Your task to perform on an android device: turn off priority inbox in the gmail app Image 0: 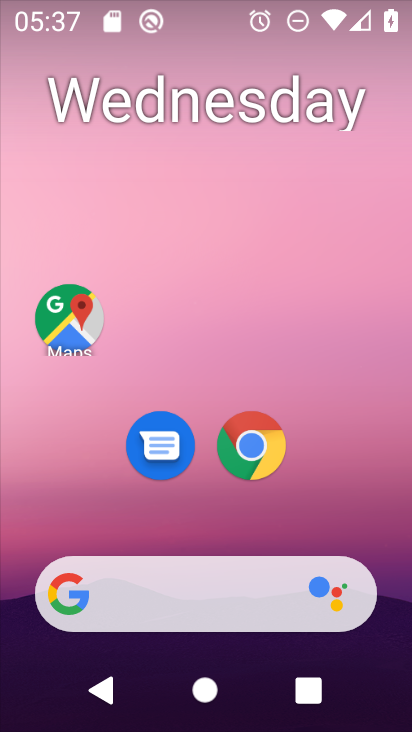
Step 0: drag from (196, 517) to (237, 76)
Your task to perform on an android device: turn off priority inbox in the gmail app Image 1: 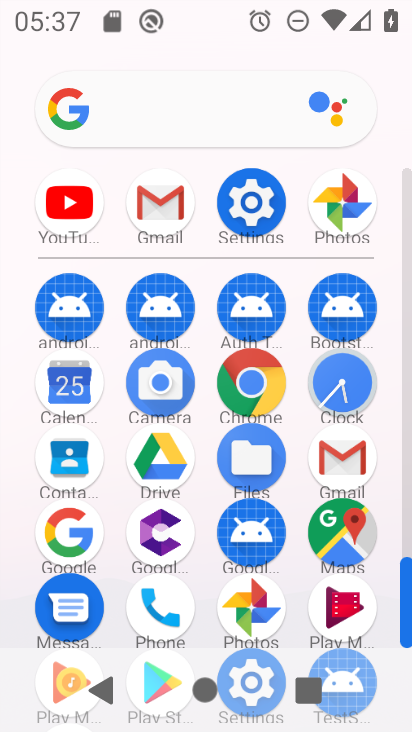
Step 1: click (170, 189)
Your task to perform on an android device: turn off priority inbox in the gmail app Image 2: 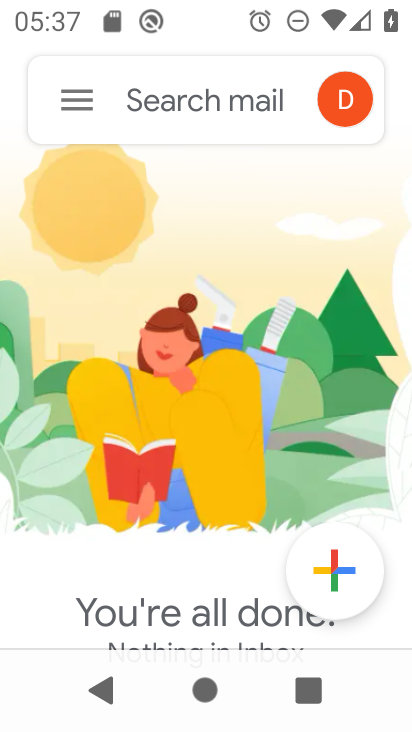
Step 2: click (88, 104)
Your task to perform on an android device: turn off priority inbox in the gmail app Image 3: 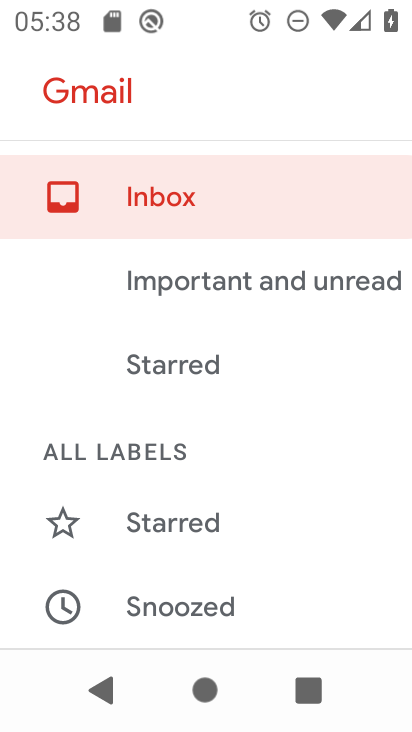
Step 3: drag from (101, 612) to (110, 189)
Your task to perform on an android device: turn off priority inbox in the gmail app Image 4: 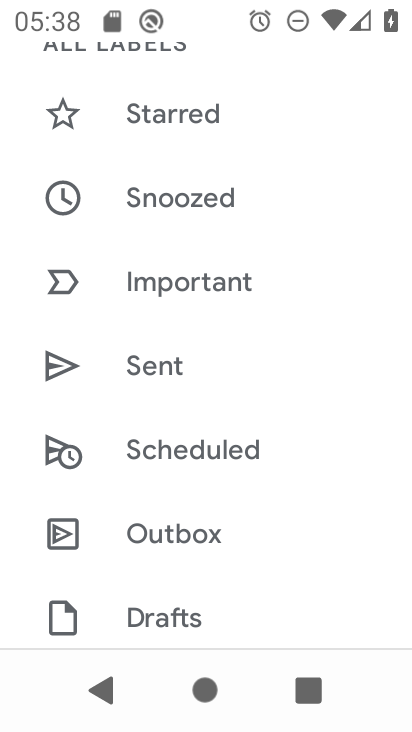
Step 4: drag from (105, 638) to (222, 87)
Your task to perform on an android device: turn off priority inbox in the gmail app Image 5: 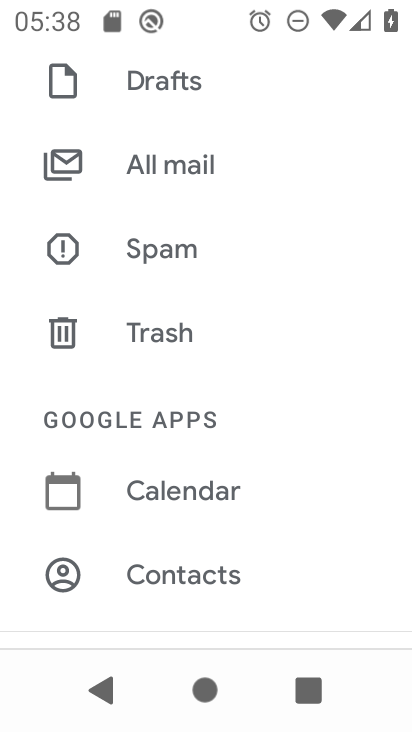
Step 5: drag from (62, 610) to (94, 127)
Your task to perform on an android device: turn off priority inbox in the gmail app Image 6: 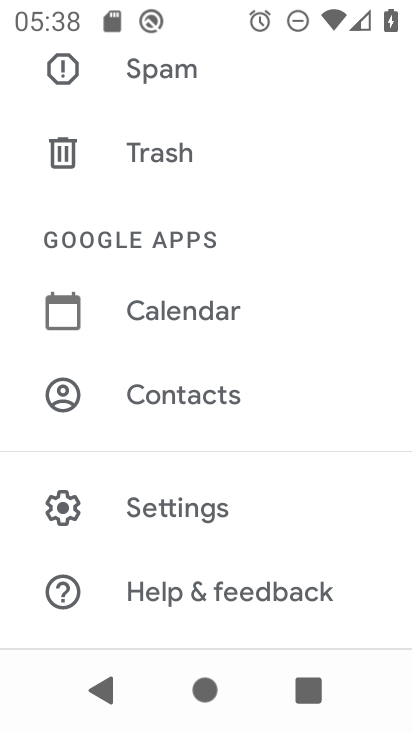
Step 6: click (52, 484)
Your task to perform on an android device: turn off priority inbox in the gmail app Image 7: 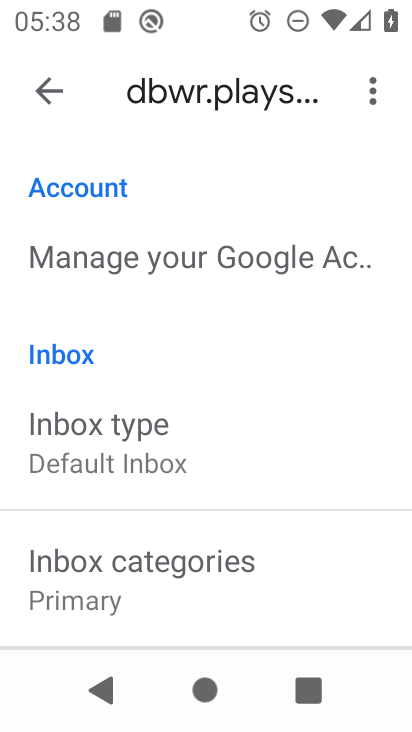
Step 7: click (136, 460)
Your task to perform on an android device: turn off priority inbox in the gmail app Image 8: 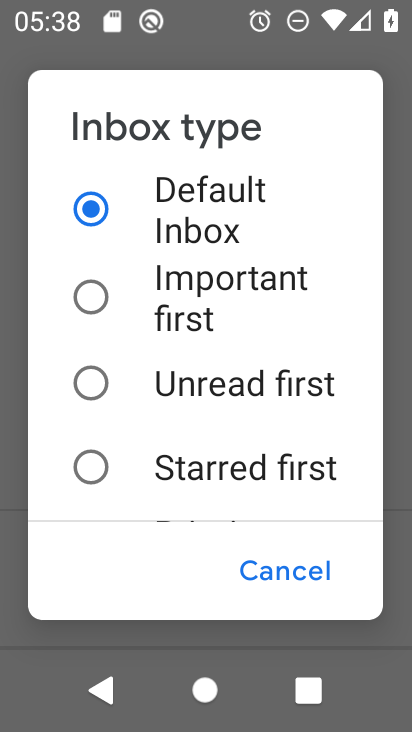
Step 8: click (194, 379)
Your task to perform on an android device: turn off priority inbox in the gmail app Image 9: 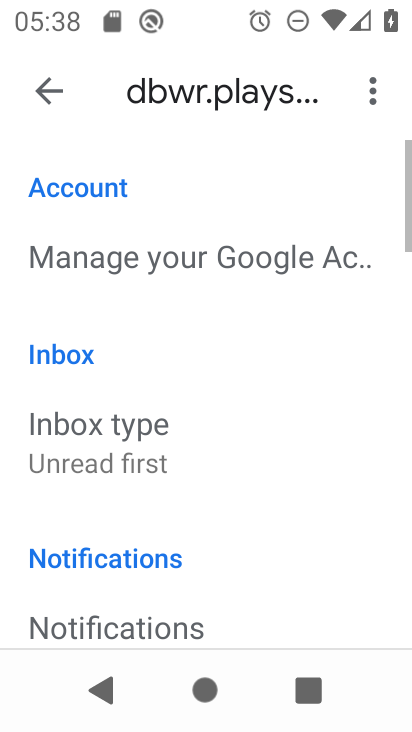
Step 9: task complete